Your task to perform on an android device: Open network settings Image 0: 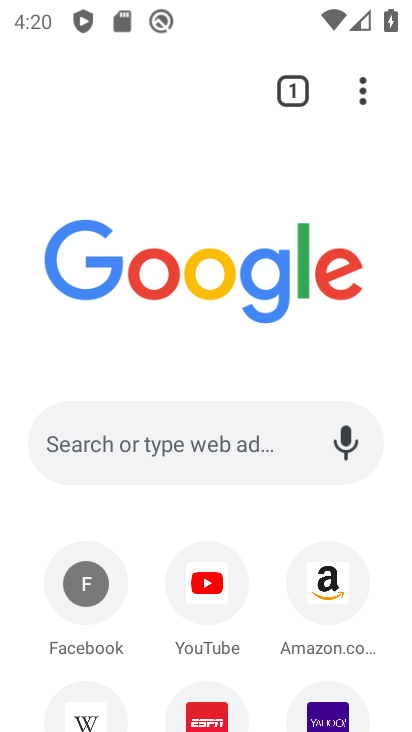
Step 0: press home button
Your task to perform on an android device: Open network settings Image 1: 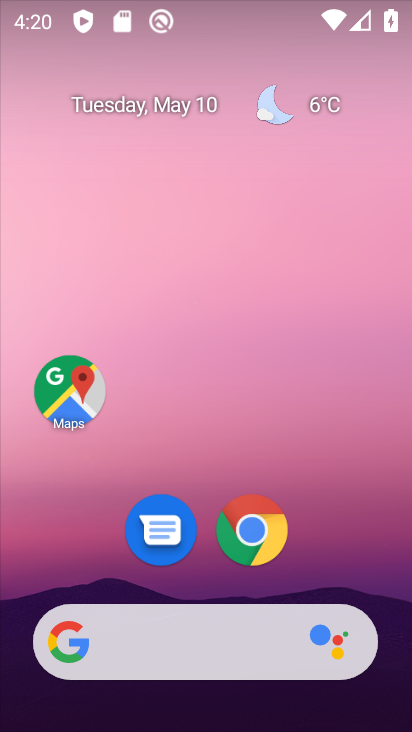
Step 1: drag from (339, 481) to (328, 173)
Your task to perform on an android device: Open network settings Image 2: 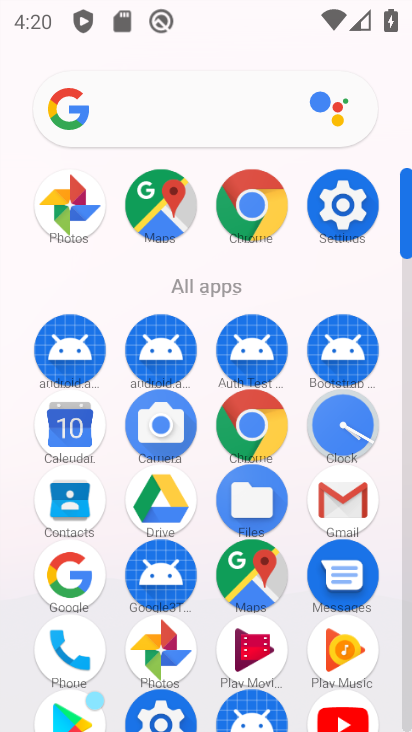
Step 2: click (371, 210)
Your task to perform on an android device: Open network settings Image 3: 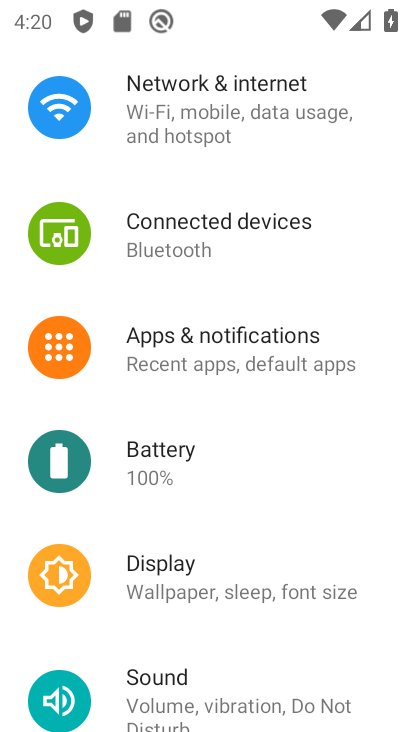
Step 3: click (202, 121)
Your task to perform on an android device: Open network settings Image 4: 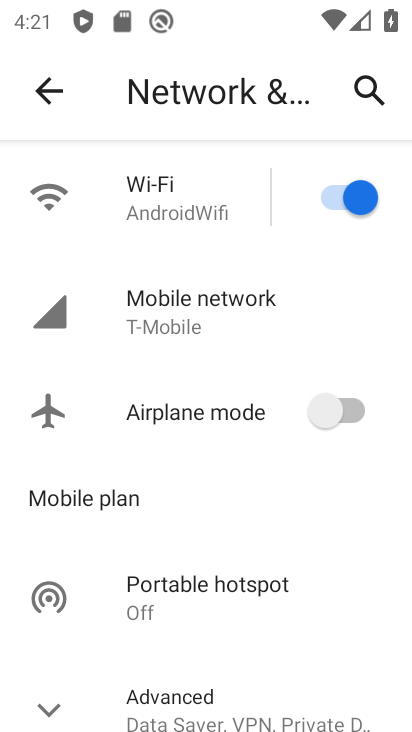
Step 4: click (218, 291)
Your task to perform on an android device: Open network settings Image 5: 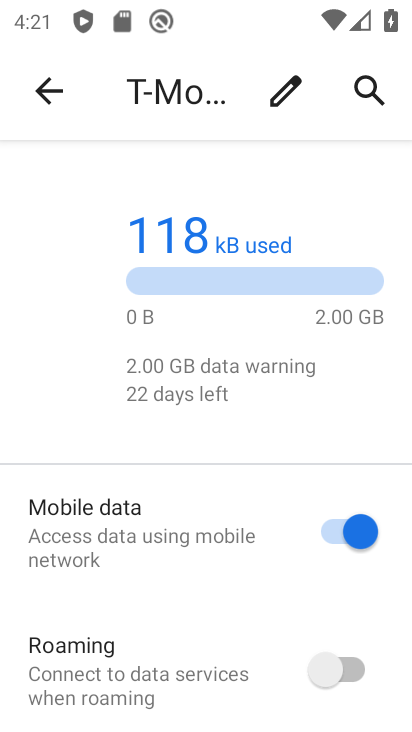
Step 5: task complete